Your task to perform on an android device: Open Google Maps and go to "Timeline" Image 0: 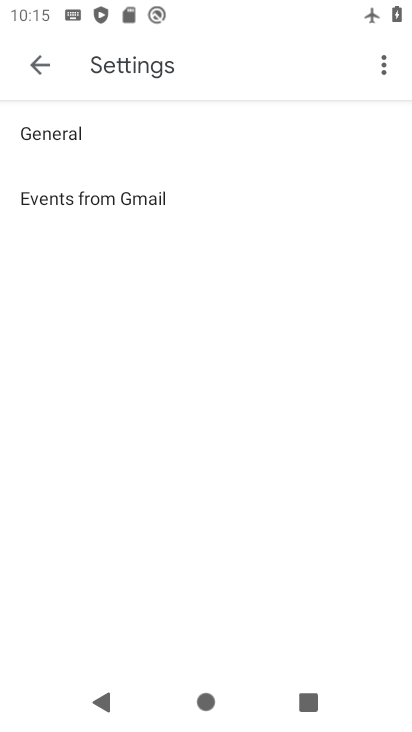
Step 0: press back button
Your task to perform on an android device: Open Google Maps and go to "Timeline" Image 1: 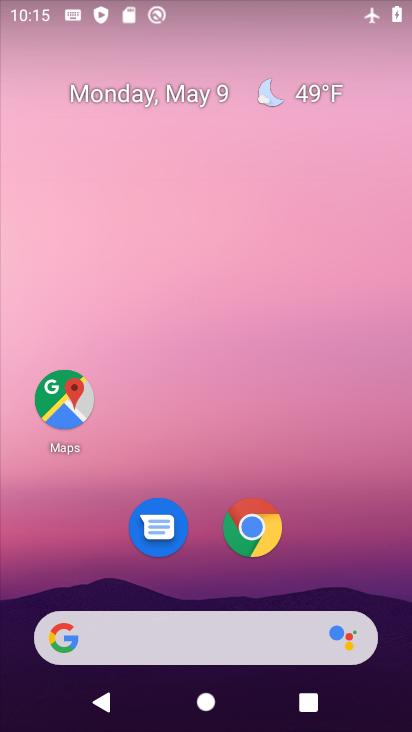
Step 1: click (61, 401)
Your task to perform on an android device: Open Google Maps and go to "Timeline" Image 2: 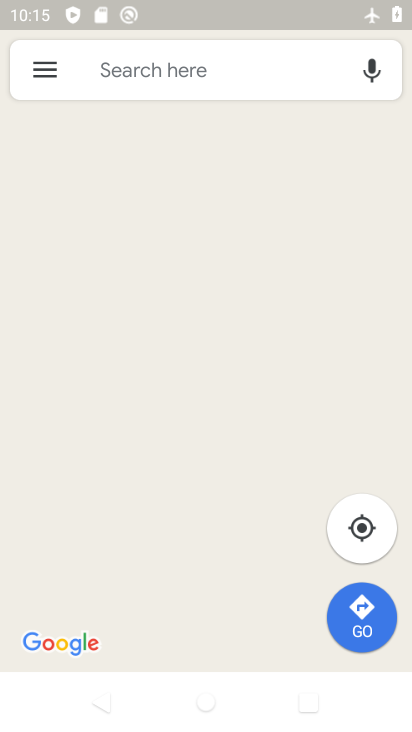
Step 2: click (44, 68)
Your task to perform on an android device: Open Google Maps and go to "Timeline" Image 3: 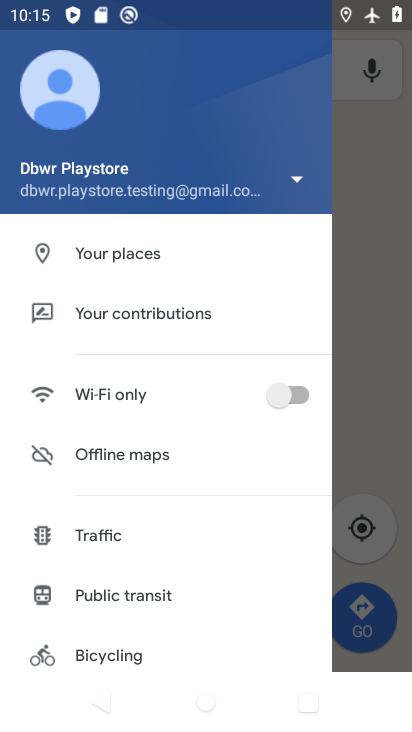
Step 3: click (122, 259)
Your task to perform on an android device: Open Google Maps and go to "Timeline" Image 4: 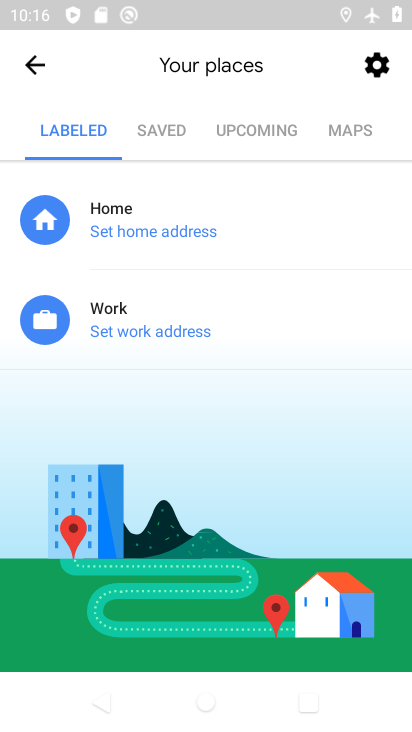
Step 4: click (44, 60)
Your task to perform on an android device: Open Google Maps and go to "Timeline" Image 5: 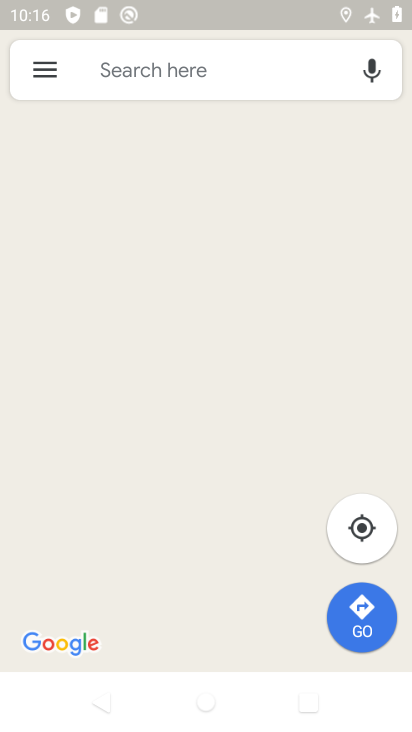
Step 5: click (40, 73)
Your task to perform on an android device: Open Google Maps and go to "Timeline" Image 6: 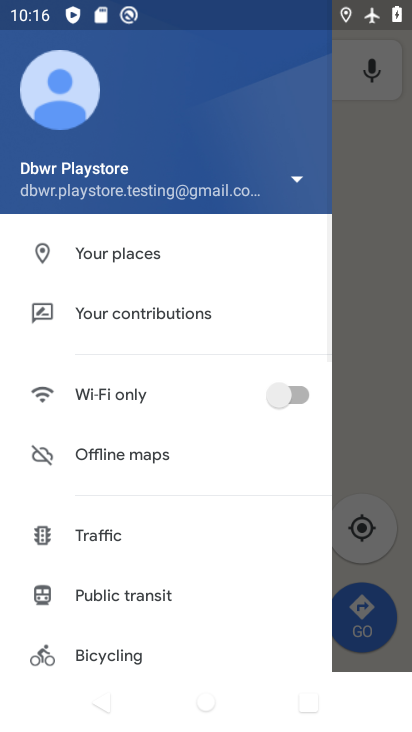
Step 6: drag from (136, 476) to (131, 242)
Your task to perform on an android device: Open Google Maps and go to "Timeline" Image 7: 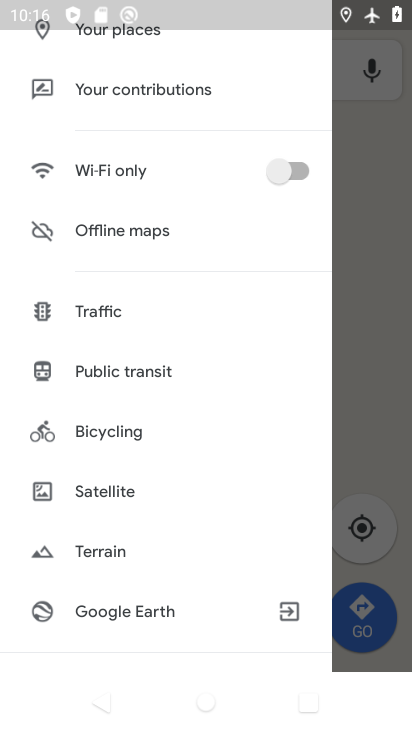
Step 7: drag from (131, 241) to (185, 392)
Your task to perform on an android device: Open Google Maps and go to "Timeline" Image 8: 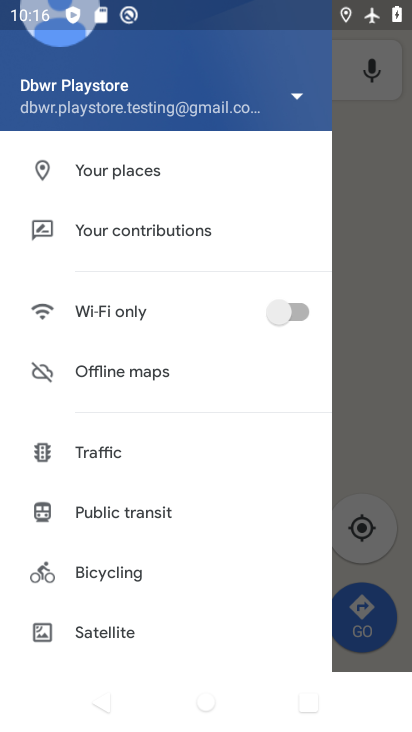
Step 8: click (130, 178)
Your task to perform on an android device: Open Google Maps and go to "Timeline" Image 9: 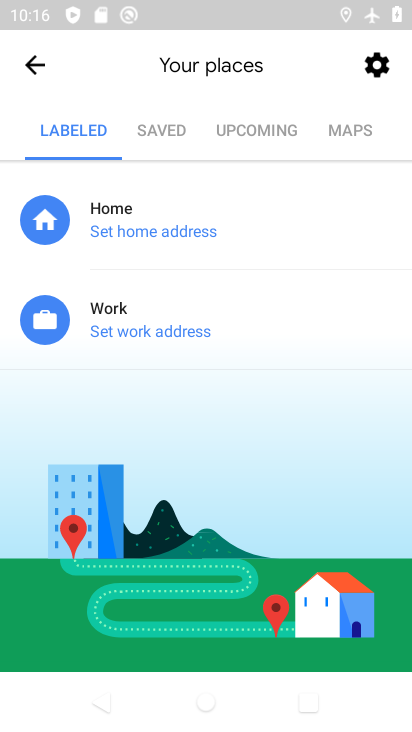
Step 9: click (184, 229)
Your task to perform on an android device: Open Google Maps and go to "Timeline" Image 10: 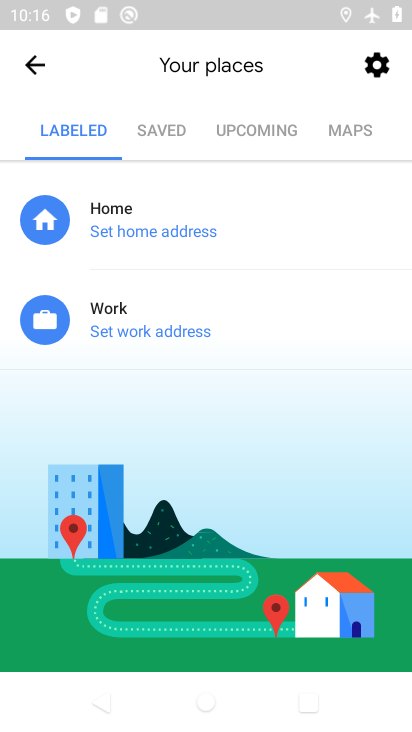
Step 10: task complete